Your task to perform on an android device: change text size in settings app Image 0: 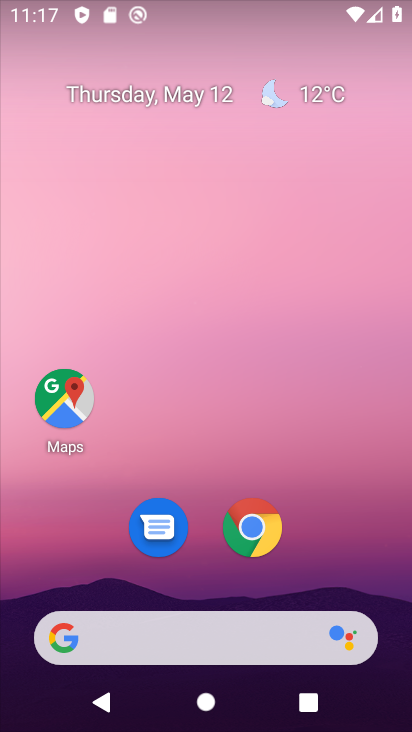
Step 0: press home button
Your task to perform on an android device: change text size in settings app Image 1: 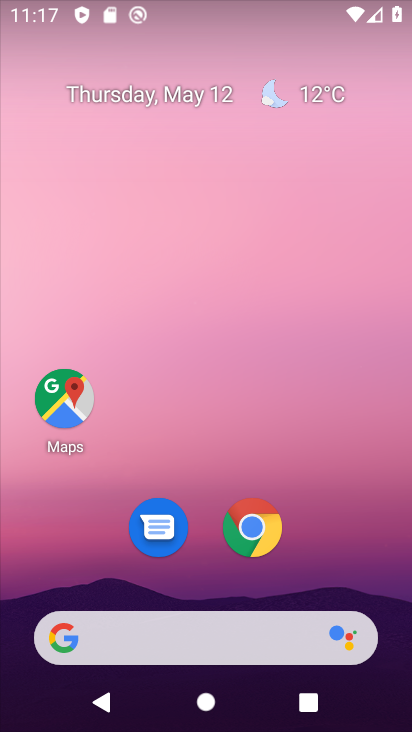
Step 1: drag from (17, 623) to (267, 170)
Your task to perform on an android device: change text size in settings app Image 2: 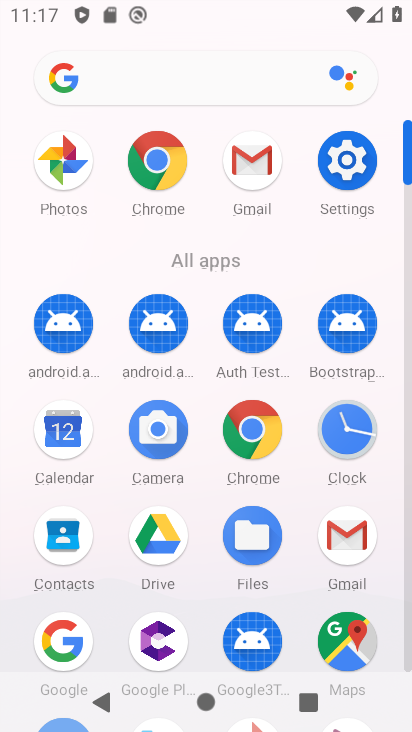
Step 2: click (346, 169)
Your task to perform on an android device: change text size in settings app Image 3: 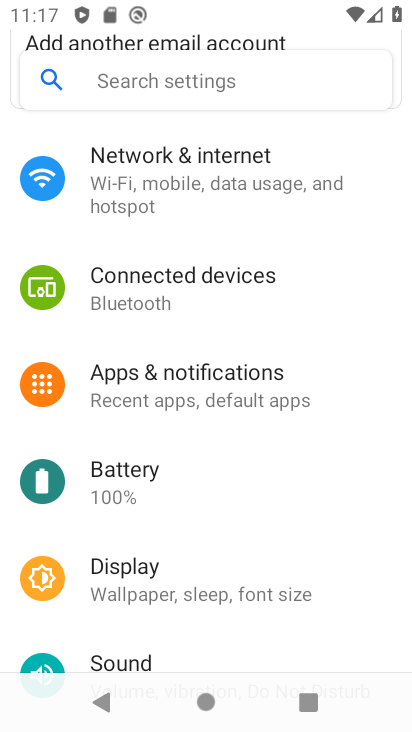
Step 3: click (150, 600)
Your task to perform on an android device: change text size in settings app Image 4: 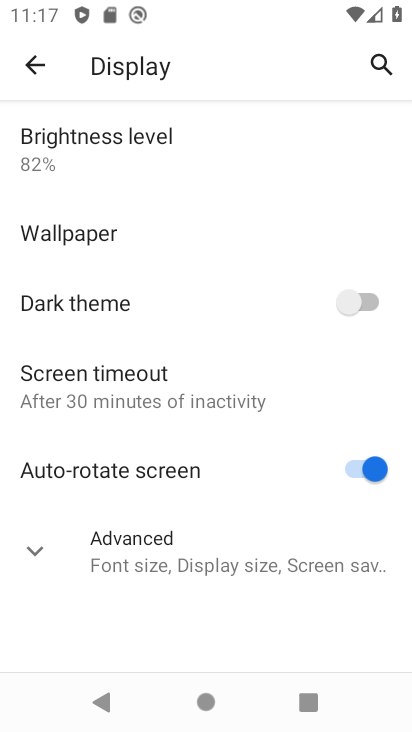
Step 4: click (229, 549)
Your task to perform on an android device: change text size in settings app Image 5: 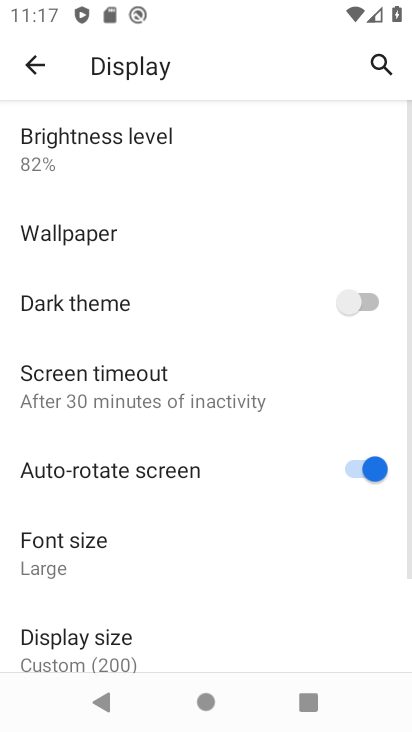
Step 5: click (80, 576)
Your task to perform on an android device: change text size in settings app Image 6: 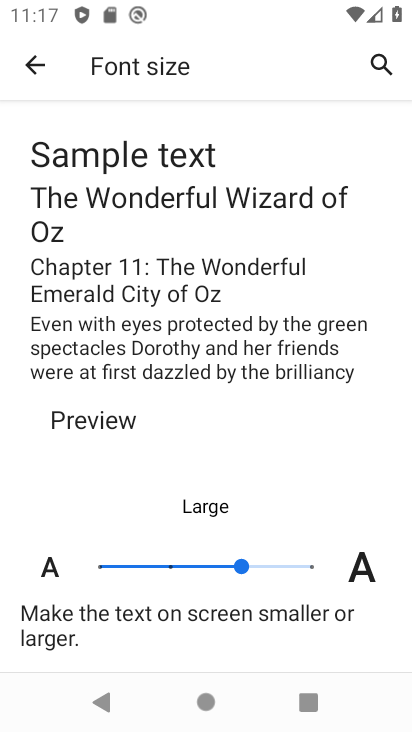
Step 6: task complete